Your task to perform on an android device: create a new album in the google photos Image 0: 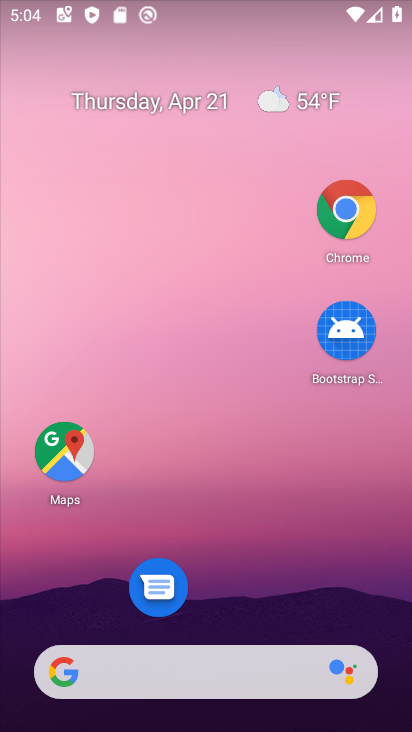
Step 0: drag from (250, 595) to (235, 110)
Your task to perform on an android device: create a new album in the google photos Image 1: 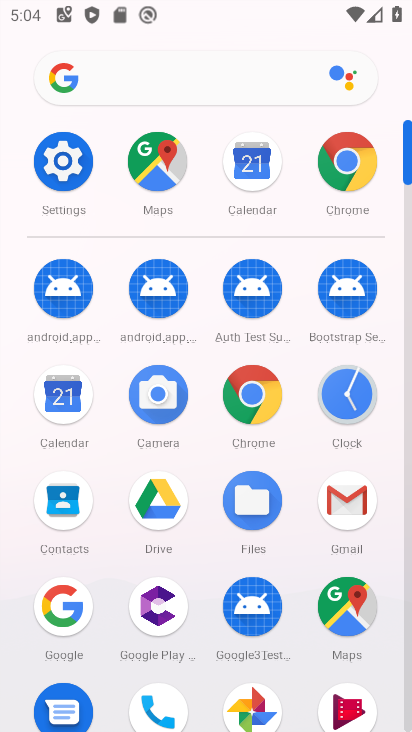
Step 1: drag from (309, 240) to (320, 24)
Your task to perform on an android device: create a new album in the google photos Image 2: 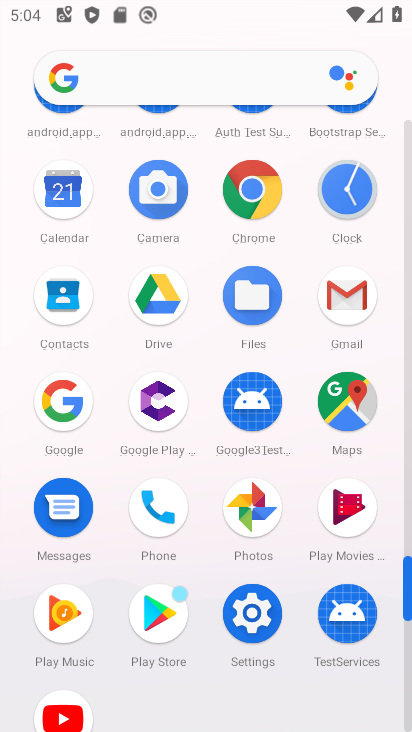
Step 2: click (250, 505)
Your task to perform on an android device: create a new album in the google photos Image 3: 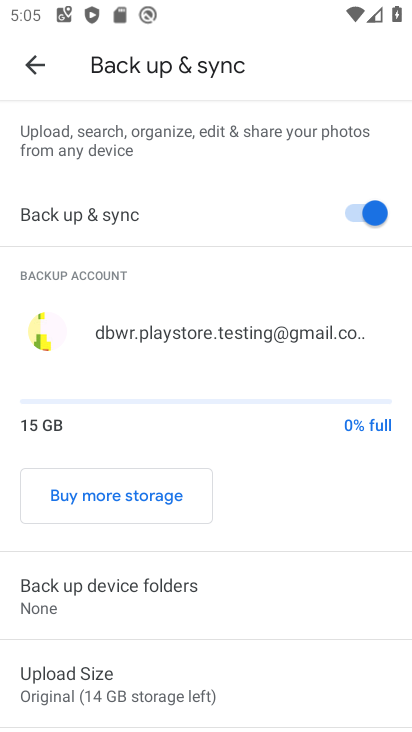
Step 3: click (40, 61)
Your task to perform on an android device: create a new album in the google photos Image 4: 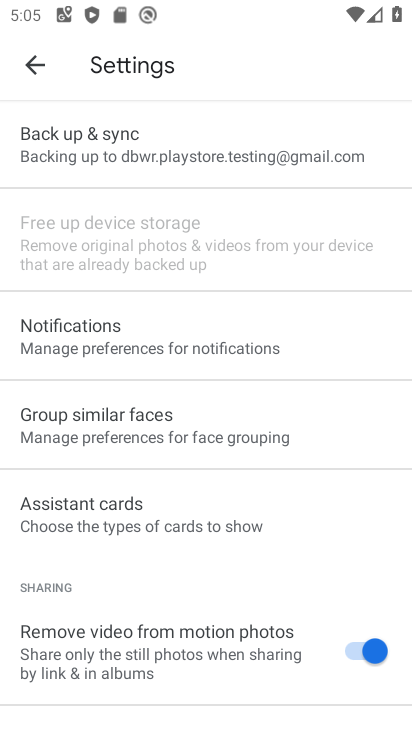
Step 4: click (36, 66)
Your task to perform on an android device: create a new album in the google photos Image 5: 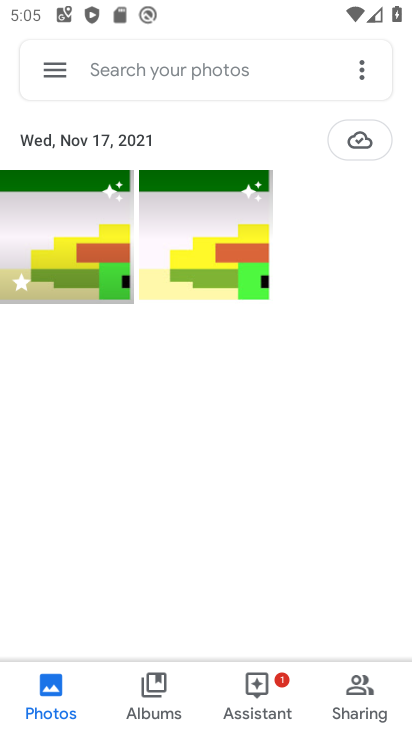
Step 5: click (69, 249)
Your task to perform on an android device: create a new album in the google photos Image 6: 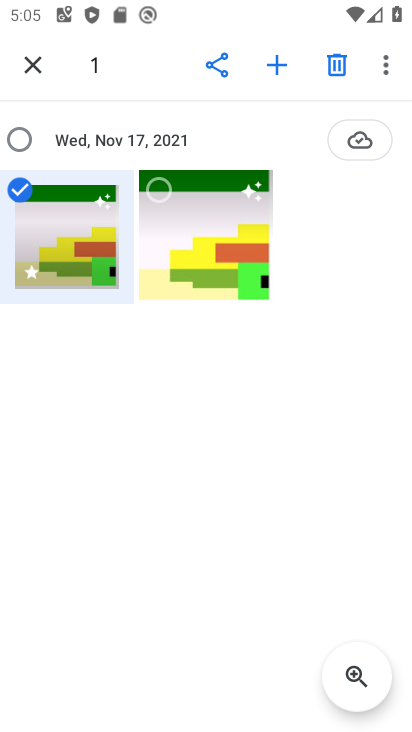
Step 6: click (158, 190)
Your task to perform on an android device: create a new album in the google photos Image 7: 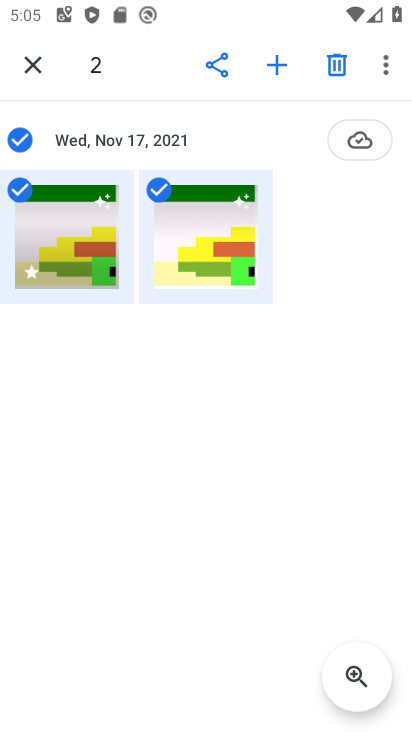
Step 7: click (289, 69)
Your task to perform on an android device: create a new album in the google photos Image 8: 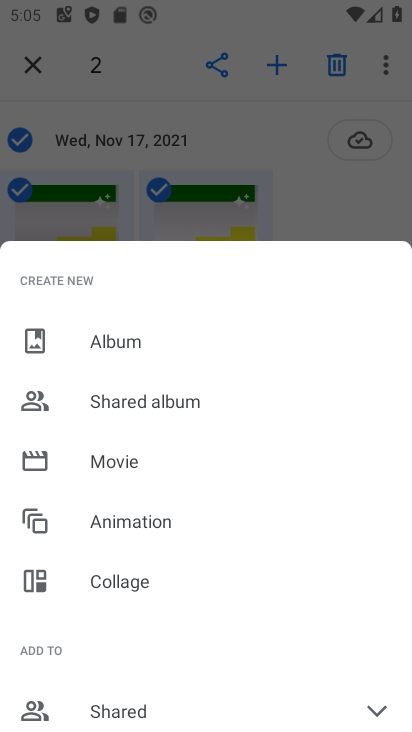
Step 8: click (117, 333)
Your task to perform on an android device: create a new album in the google photos Image 9: 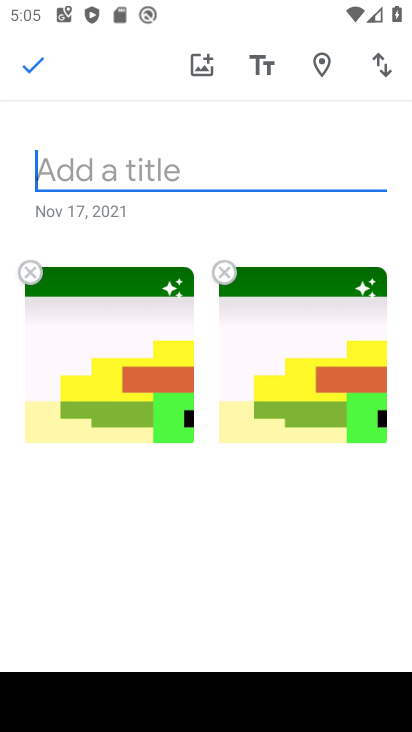
Step 9: type "family"
Your task to perform on an android device: create a new album in the google photos Image 10: 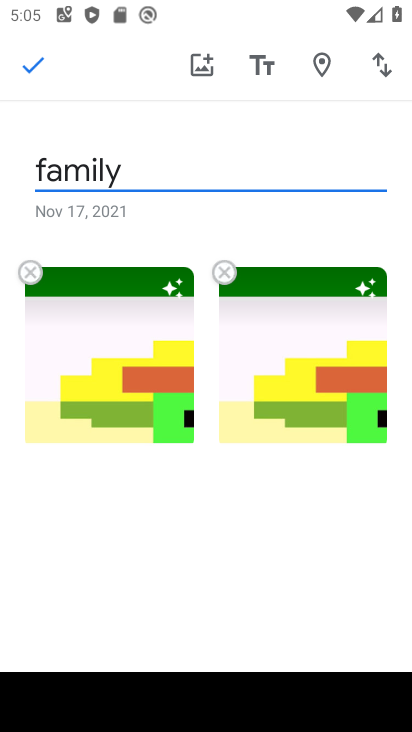
Step 10: click (34, 65)
Your task to perform on an android device: create a new album in the google photos Image 11: 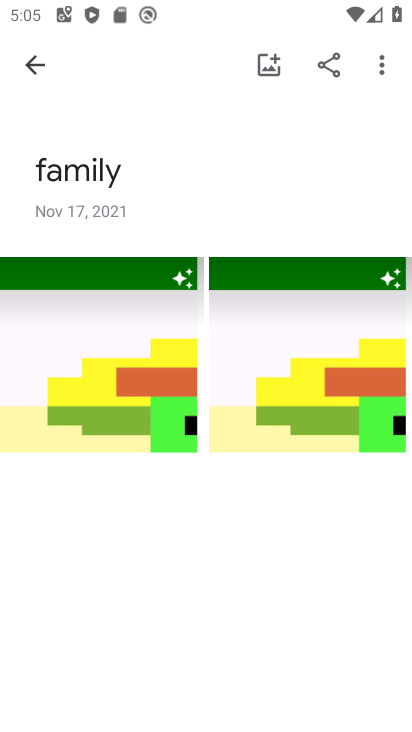
Step 11: task complete